Your task to perform on an android device: change the clock display to digital Image 0: 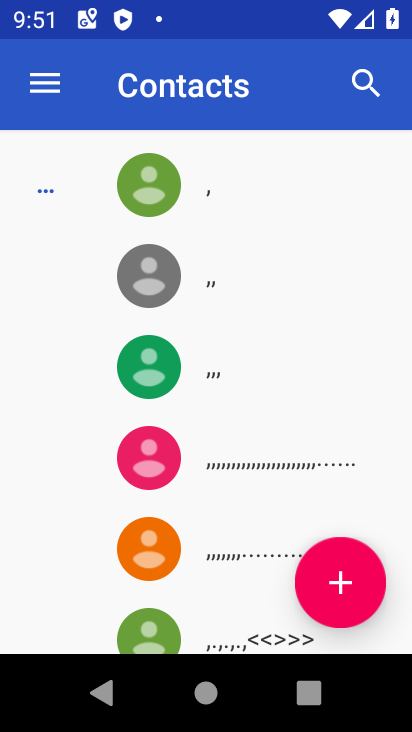
Step 0: press home button
Your task to perform on an android device: change the clock display to digital Image 1: 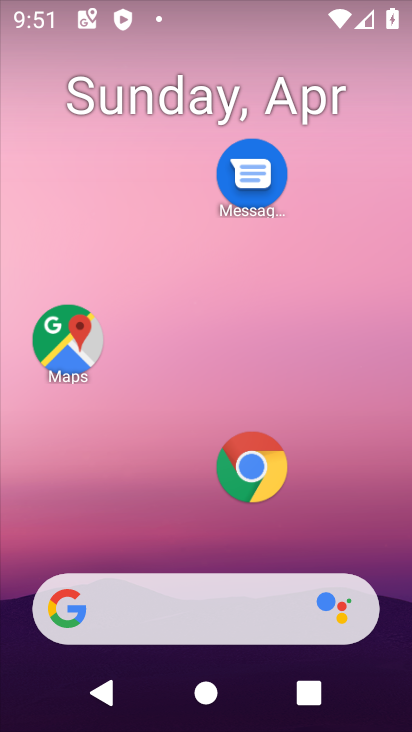
Step 1: drag from (186, 567) to (232, 112)
Your task to perform on an android device: change the clock display to digital Image 2: 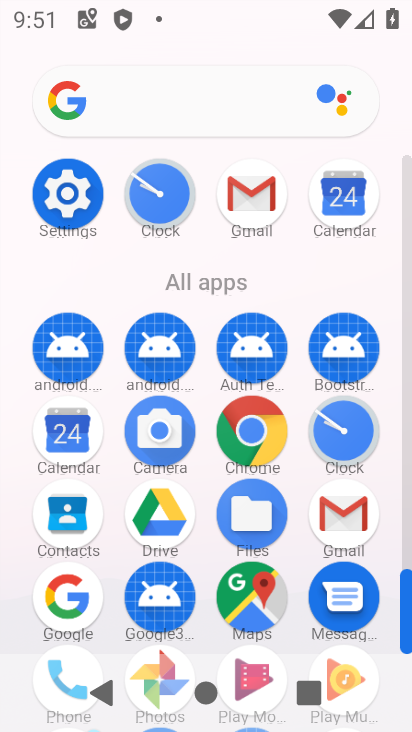
Step 2: click (163, 211)
Your task to perform on an android device: change the clock display to digital Image 3: 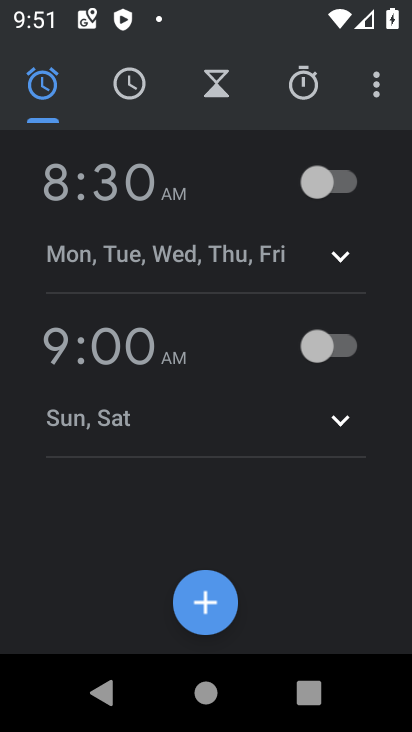
Step 3: click (375, 90)
Your task to perform on an android device: change the clock display to digital Image 4: 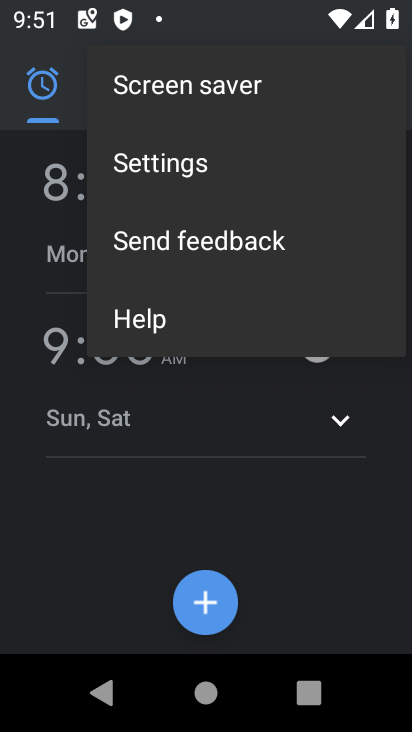
Step 4: click (185, 168)
Your task to perform on an android device: change the clock display to digital Image 5: 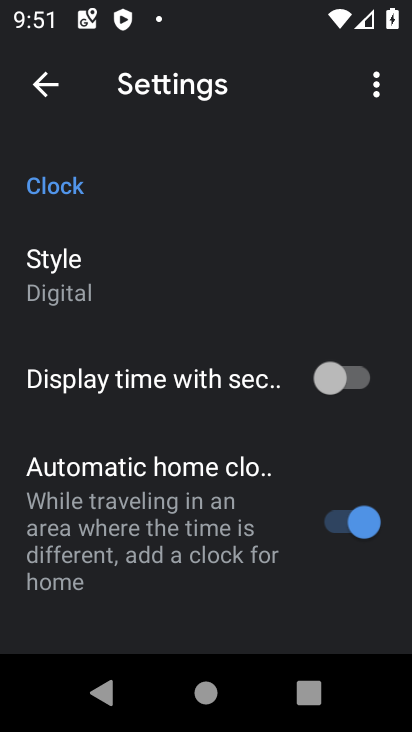
Step 5: click (112, 264)
Your task to perform on an android device: change the clock display to digital Image 6: 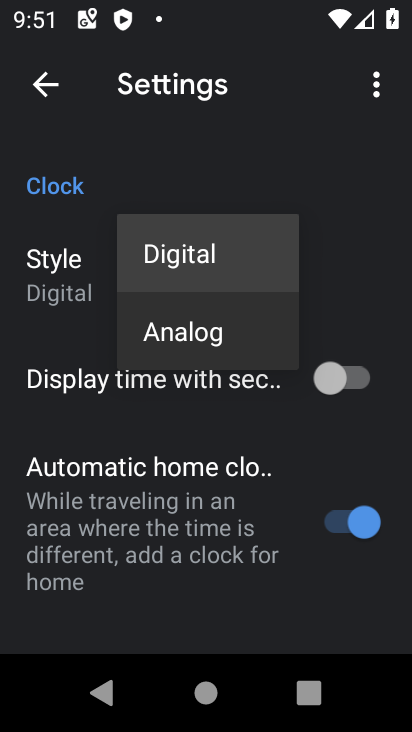
Step 6: task complete